Your task to perform on an android device: Go to Google maps Image 0: 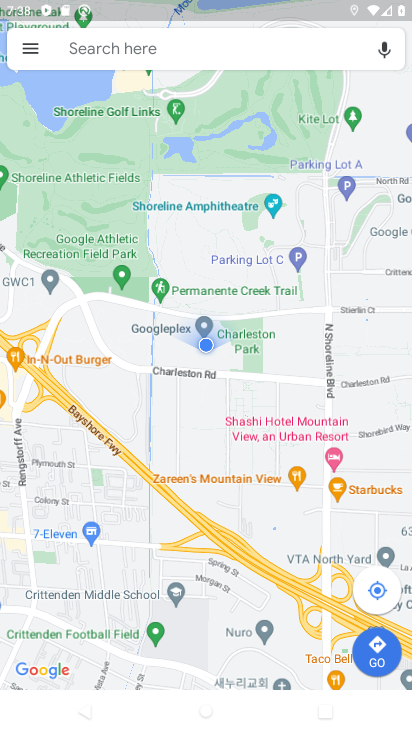
Step 0: task complete